Your task to perform on an android device: check storage Image 0: 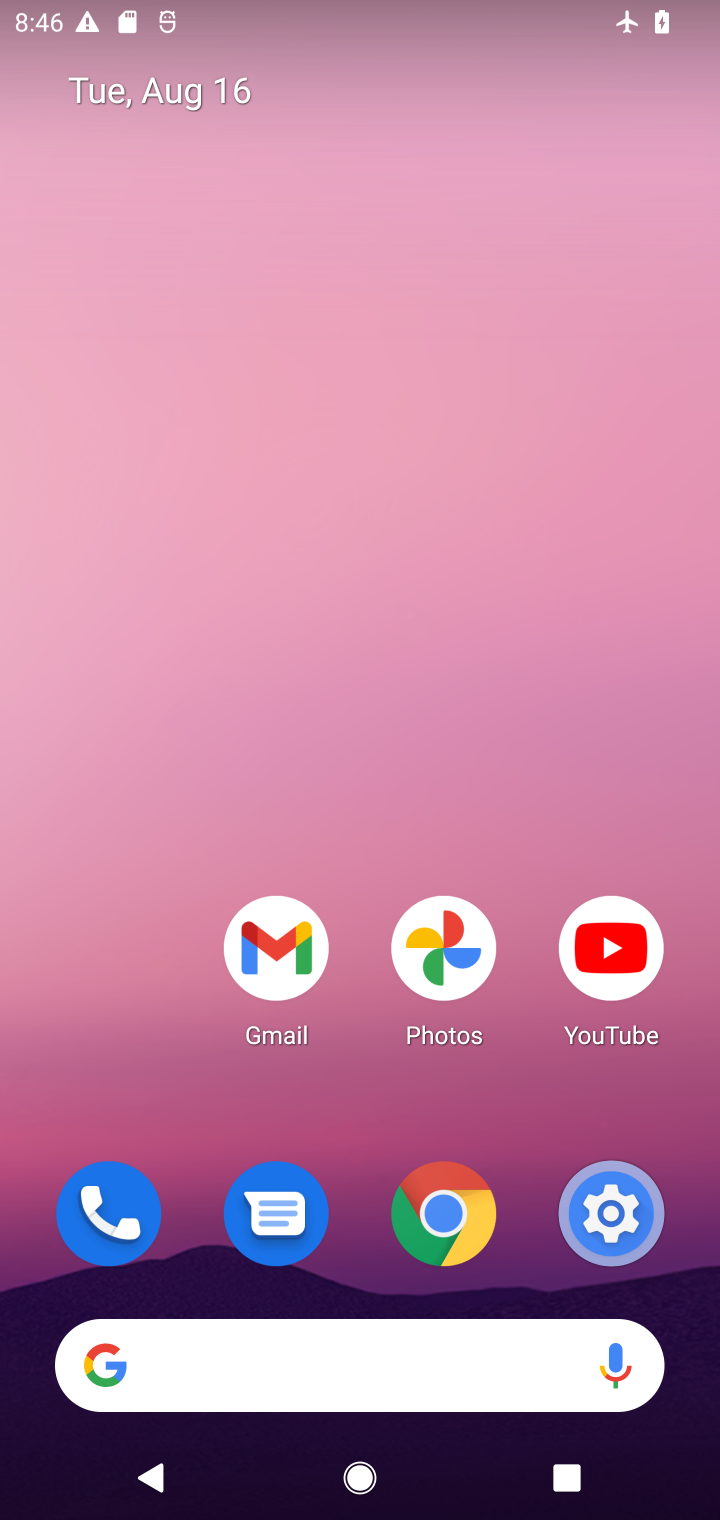
Step 0: click (66, 82)
Your task to perform on an android device: check storage Image 1: 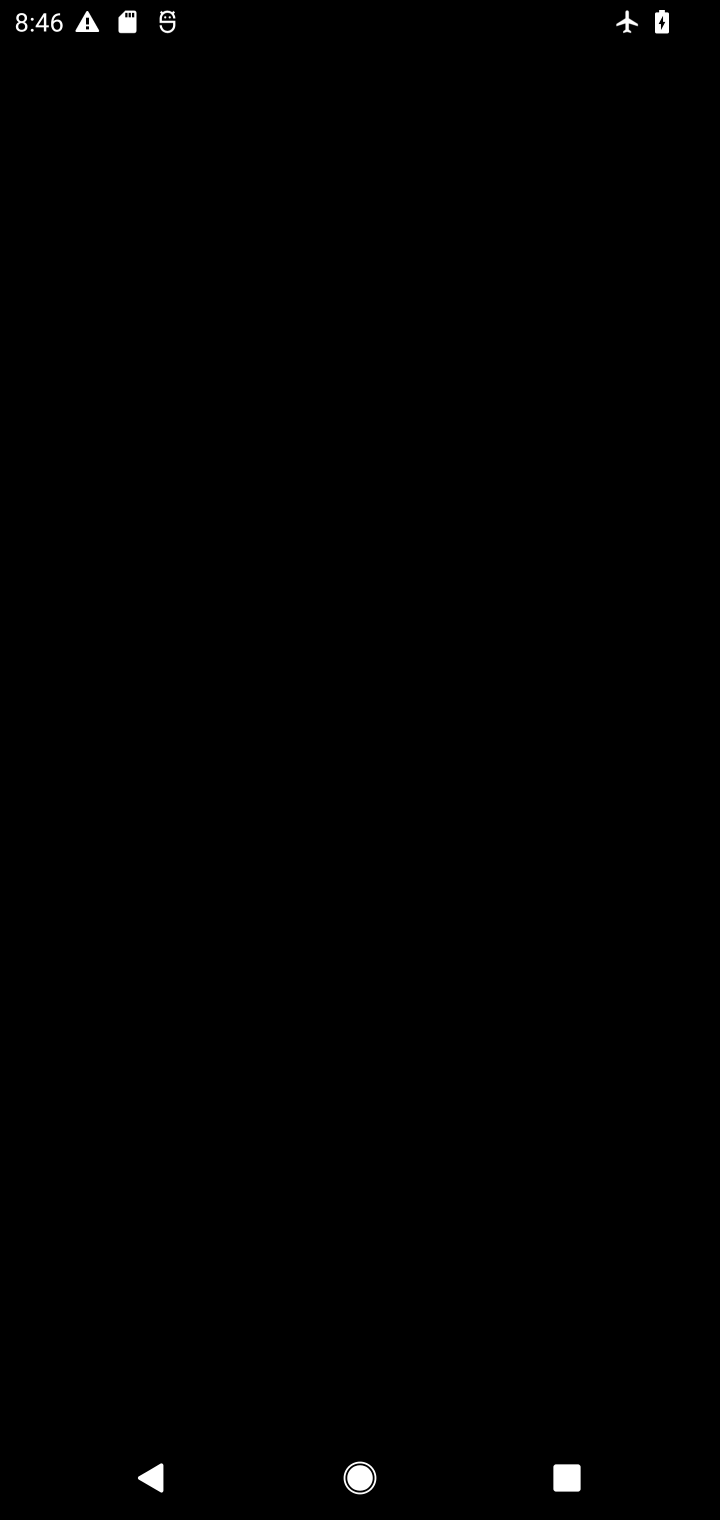
Step 1: press home button
Your task to perform on an android device: check storage Image 2: 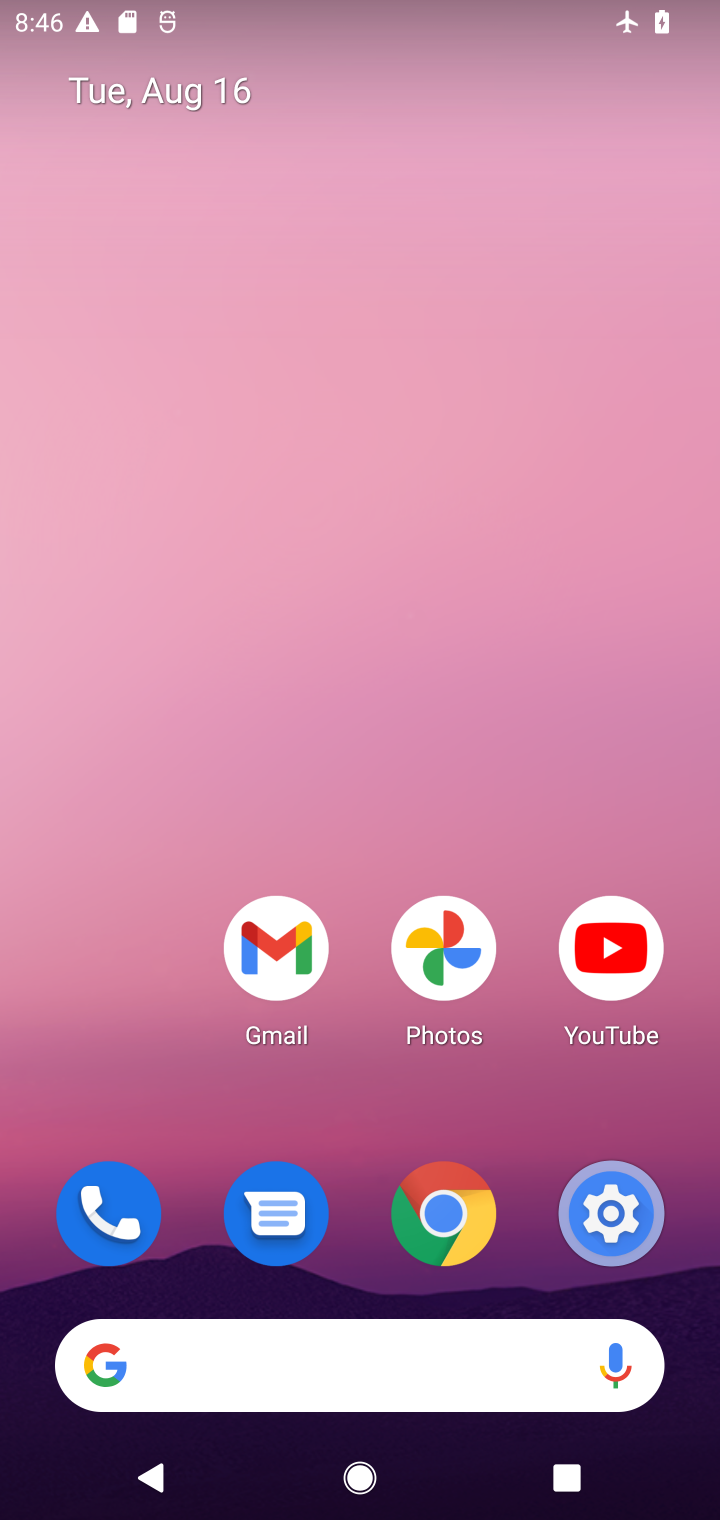
Step 2: drag from (352, 1328) to (356, 519)
Your task to perform on an android device: check storage Image 3: 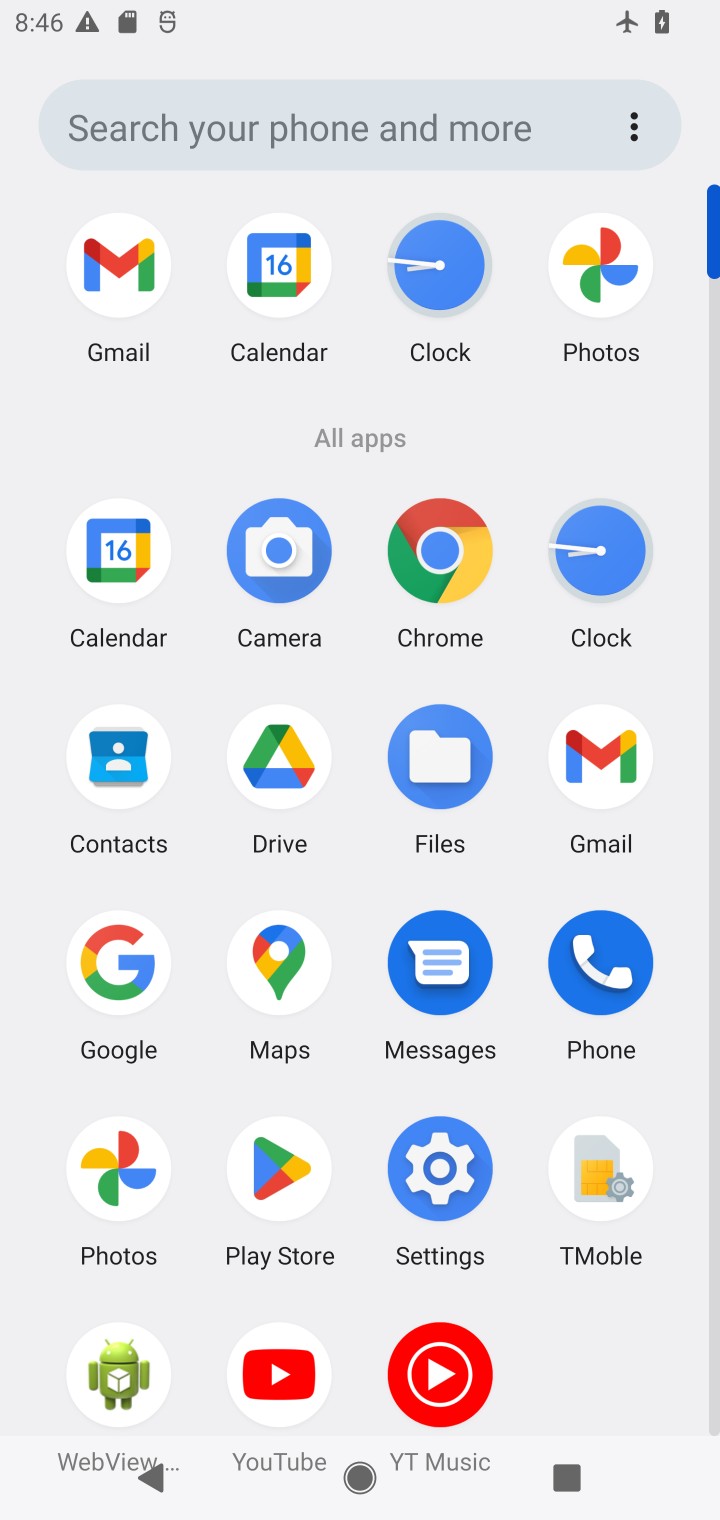
Step 3: click (427, 1163)
Your task to perform on an android device: check storage Image 4: 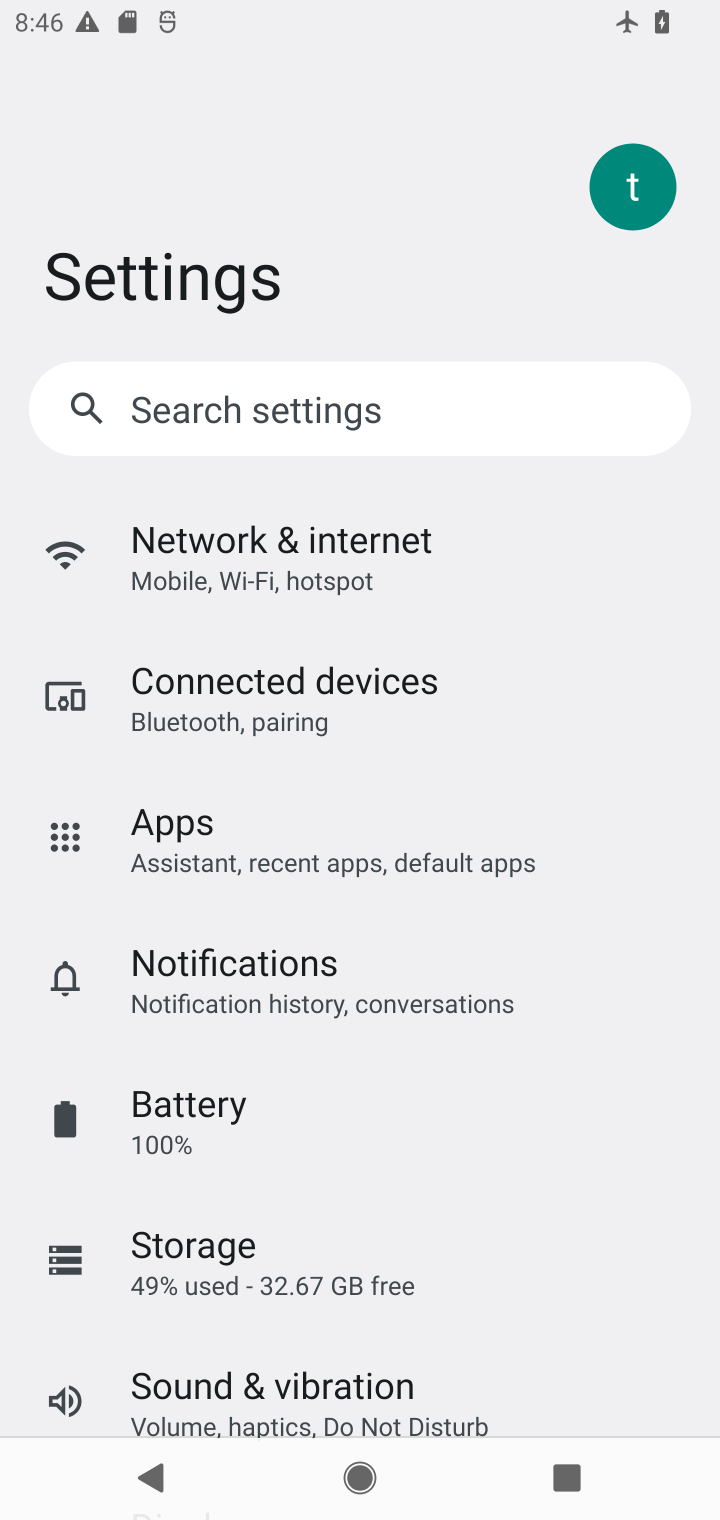
Step 4: click (175, 1245)
Your task to perform on an android device: check storage Image 5: 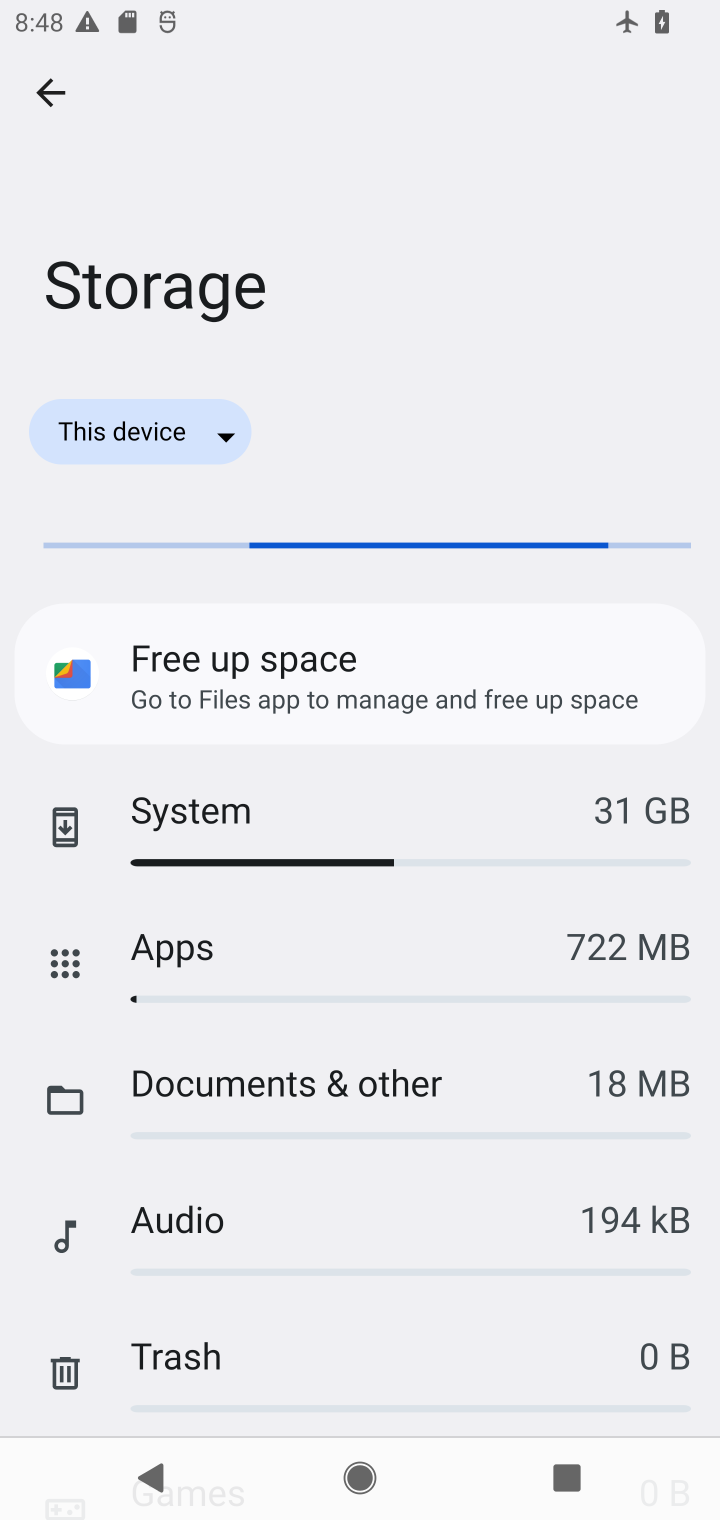
Step 5: task complete